Your task to perform on an android device: What's on my calendar tomorrow? Image 0: 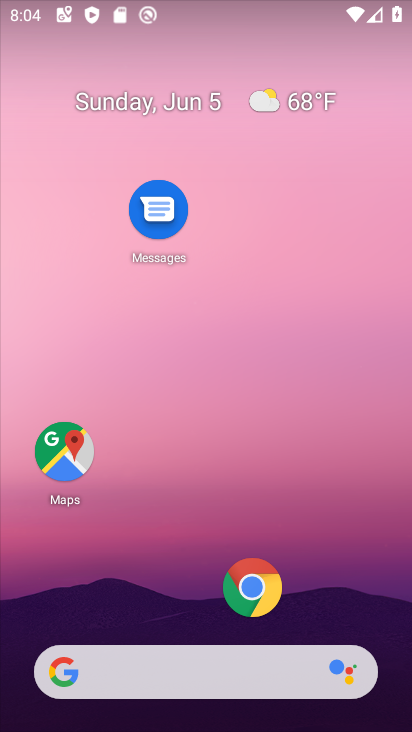
Step 0: press home button
Your task to perform on an android device: What's on my calendar tomorrow? Image 1: 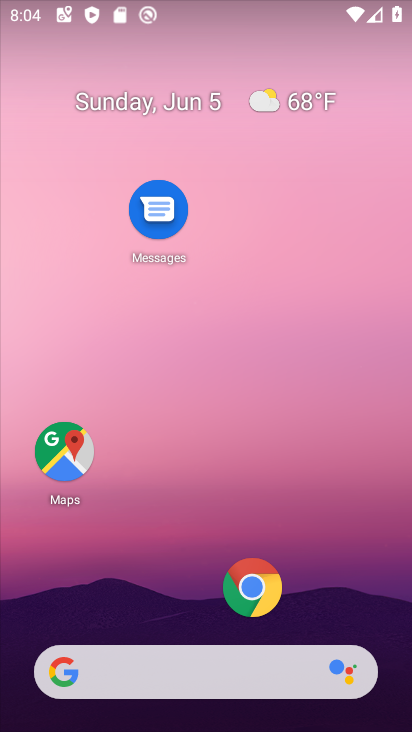
Step 1: drag from (311, 627) to (311, 29)
Your task to perform on an android device: What's on my calendar tomorrow? Image 2: 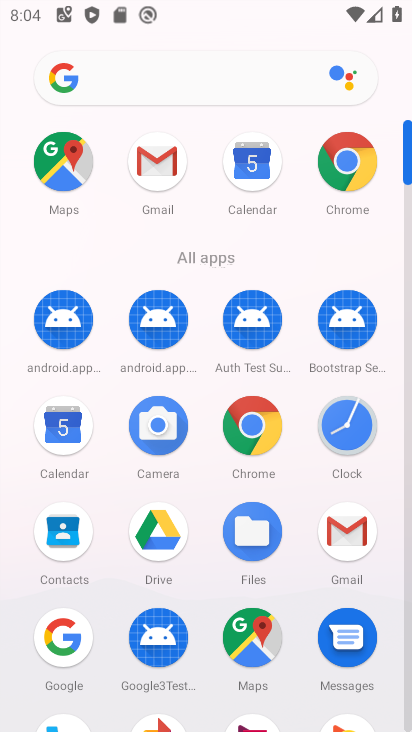
Step 2: click (62, 419)
Your task to perform on an android device: What's on my calendar tomorrow? Image 3: 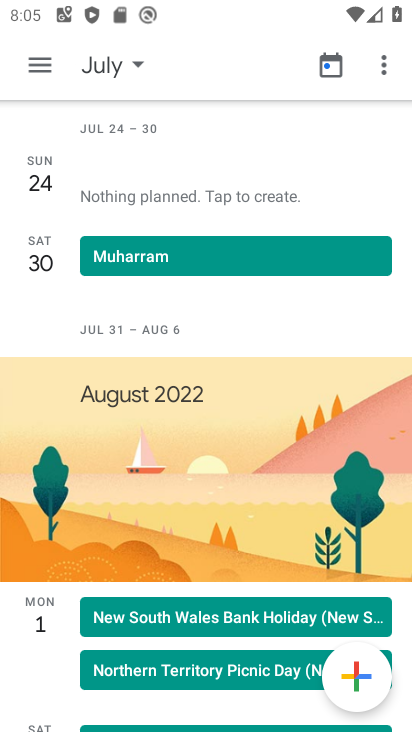
Step 3: click (141, 60)
Your task to perform on an android device: What's on my calendar tomorrow? Image 4: 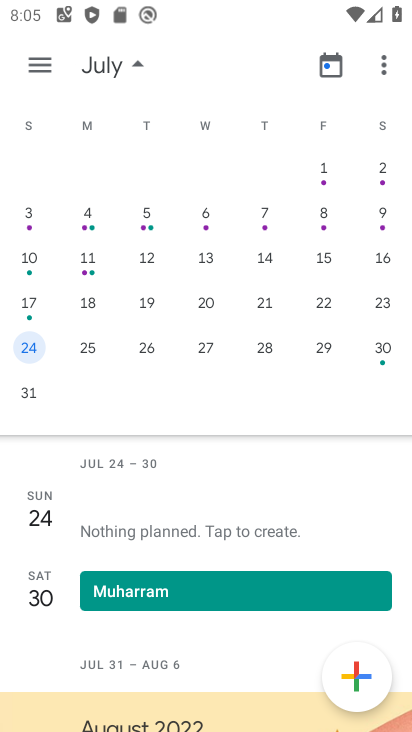
Step 4: drag from (32, 283) to (408, 276)
Your task to perform on an android device: What's on my calendar tomorrow? Image 5: 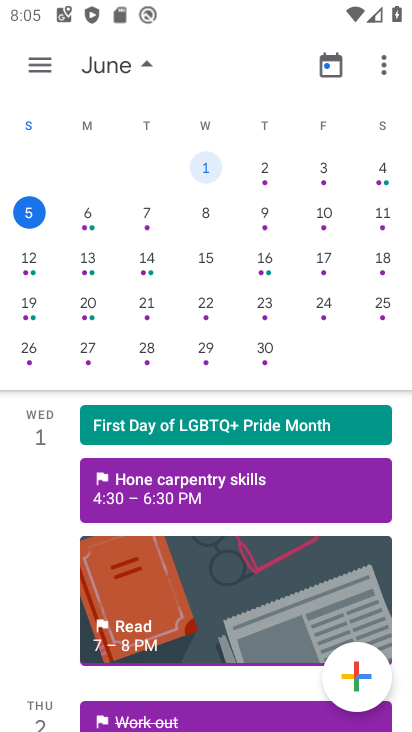
Step 5: click (31, 211)
Your task to perform on an android device: What's on my calendar tomorrow? Image 6: 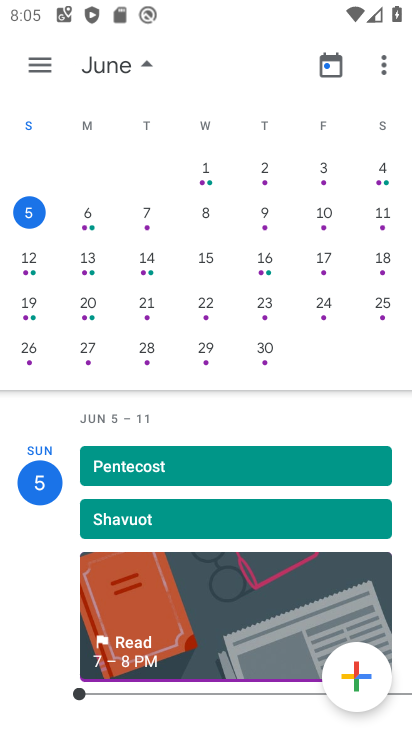
Step 6: click (96, 216)
Your task to perform on an android device: What's on my calendar tomorrow? Image 7: 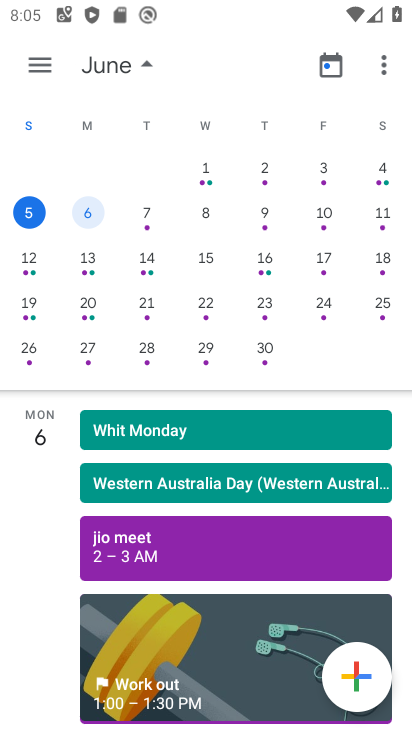
Step 7: click (150, 60)
Your task to perform on an android device: What's on my calendar tomorrow? Image 8: 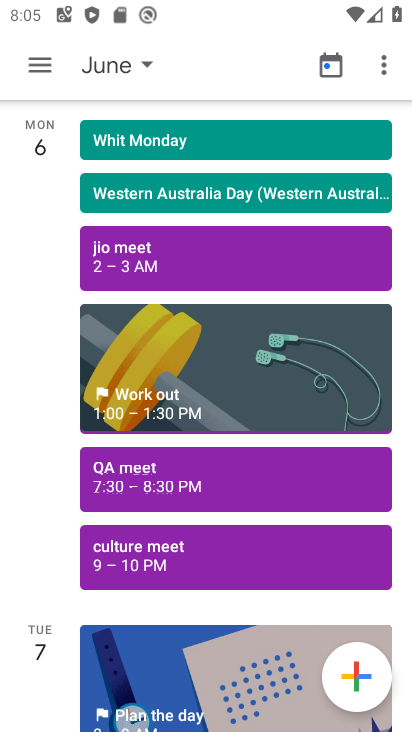
Step 8: click (57, 144)
Your task to perform on an android device: What's on my calendar tomorrow? Image 9: 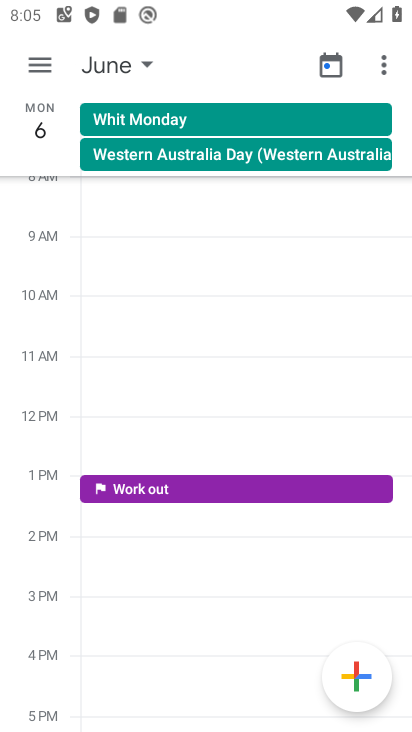
Step 9: task complete